Your task to perform on an android device: create a new album in the google photos Image 0: 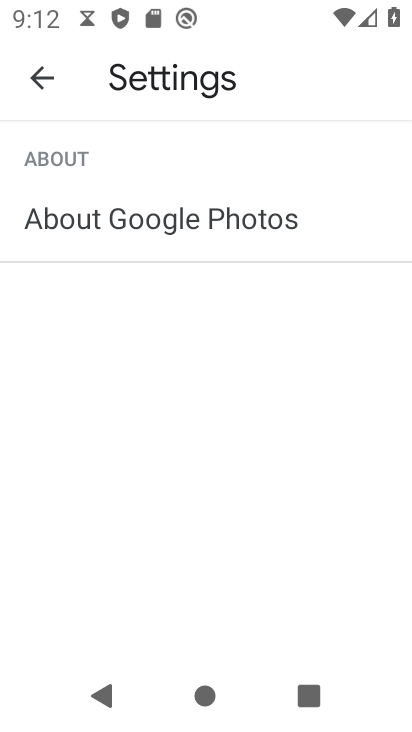
Step 0: press home button
Your task to perform on an android device: create a new album in the google photos Image 1: 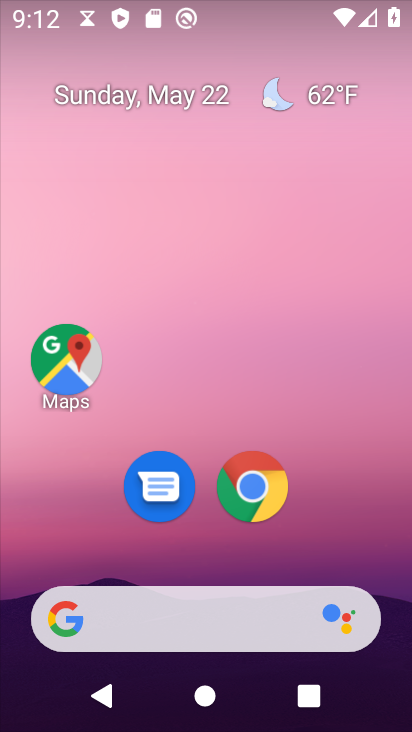
Step 1: drag from (200, 551) to (268, 20)
Your task to perform on an android device: create a new album in the google photos Image 2: 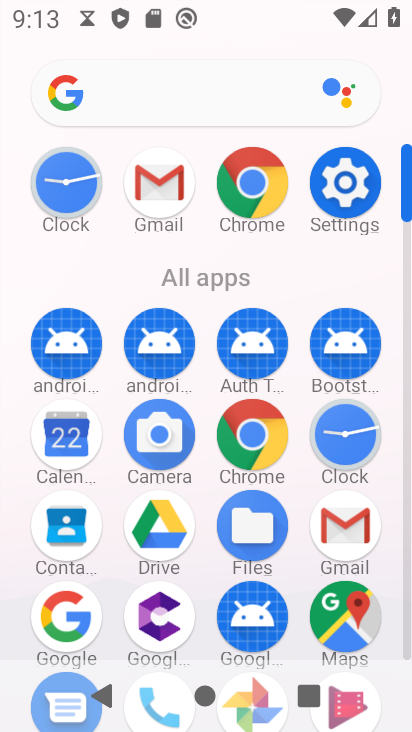
Step 2: drag from (209, 576) to (217, 193)
Your task to perform on an android device: create a new album in the google photos Image 3: 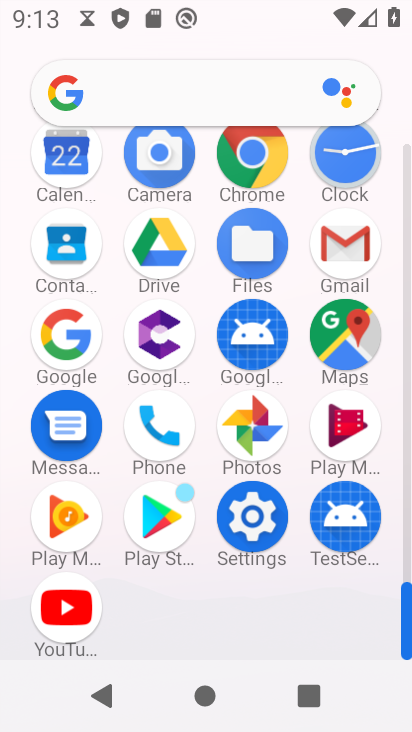
Step 3: click (253, 420)
Your task to perform on an android device: create a new album in the google photos Image 4: 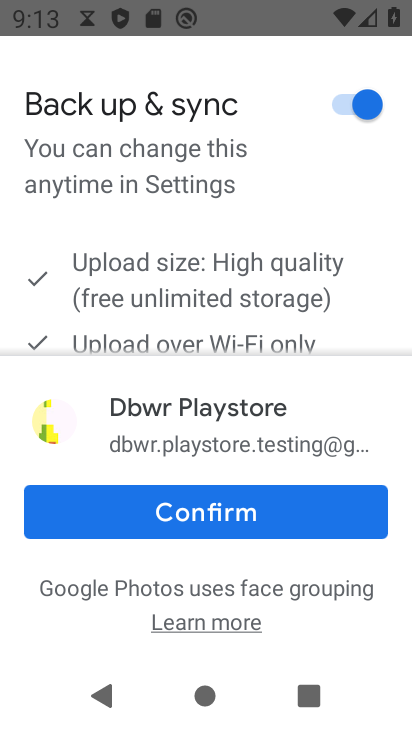
Step 4: click (203, 520)
Your task to perform on an android device: create a new album in the google photos Image 5: 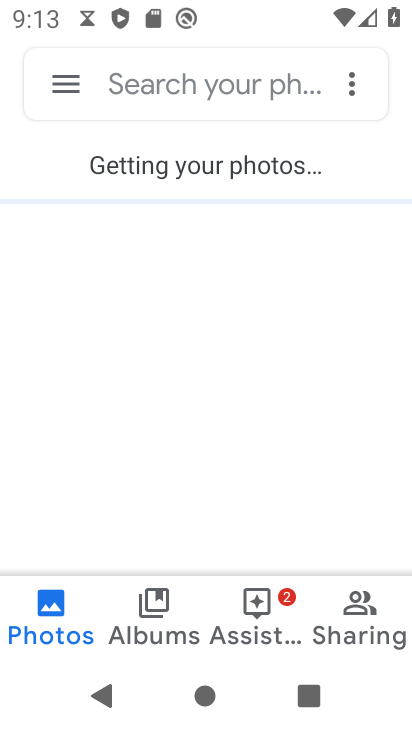
Step 5: click (158, 607)
Your task to perform on an android device: create a new album in the google photos Image 6: 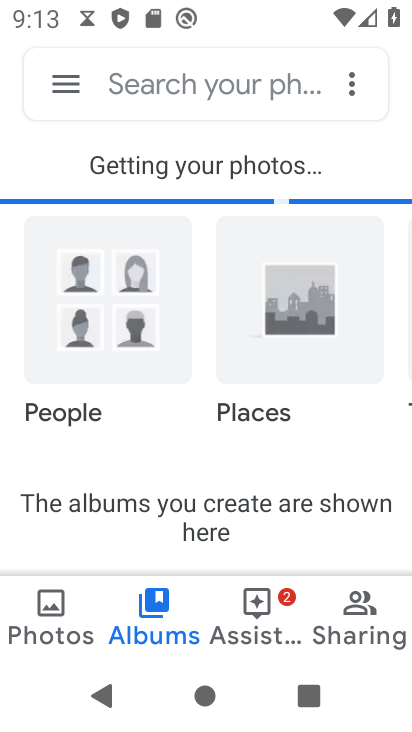
Step 6: click (355, 83)
Your task to perform on an android device: create a new album in the google photos Image 7: 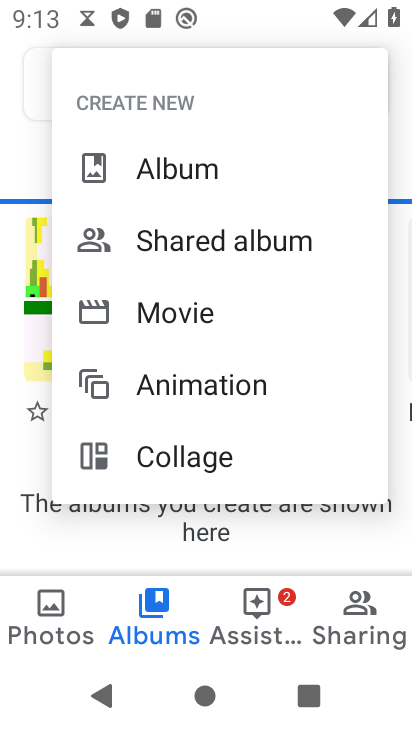
Step 7: click (192, 161)
Your task to perform on an android device: create a new album in the google photos Image 8: 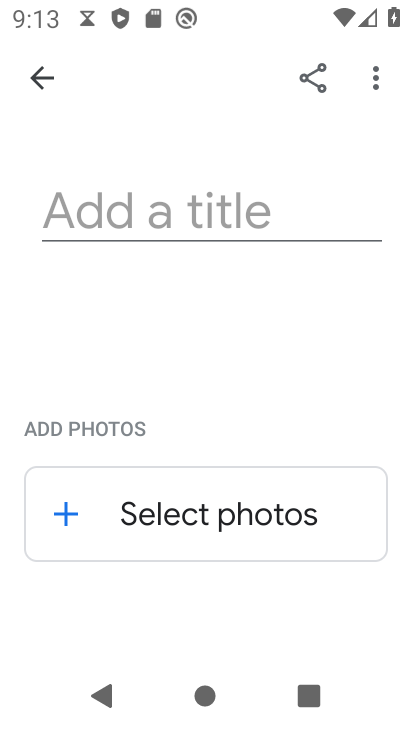
Step 8: click (76, 516)
Your task to perform on an android device: create a new album in the google photos Image 9: 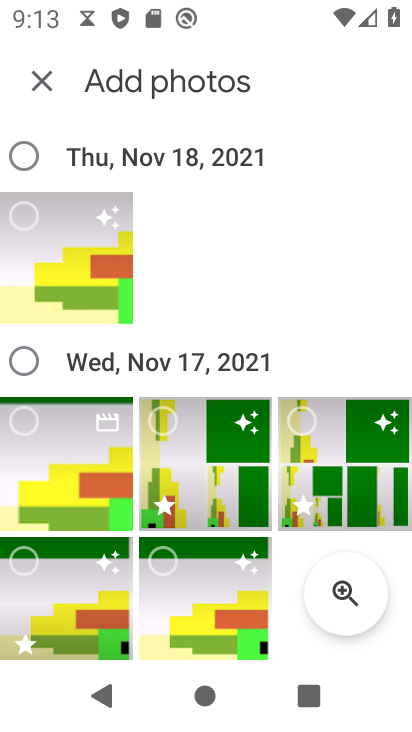
Step 9: click (54, 470)
Your task to perform on an android device: create a new album in the google photos Image 10: 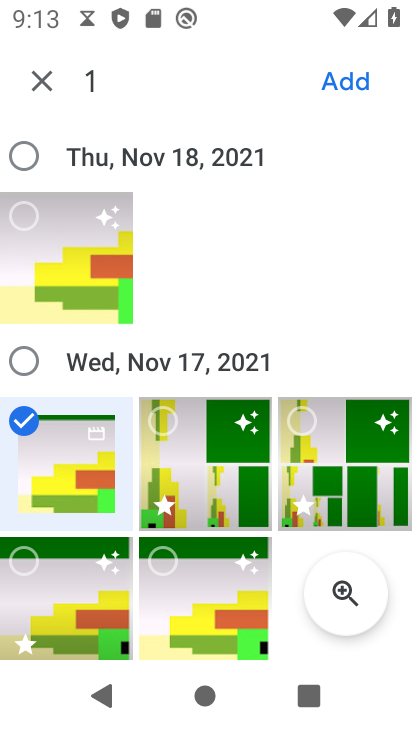
Step 10: click (166, 592)
Your task to perform on an android device: create a new album in the google photos Image 11: 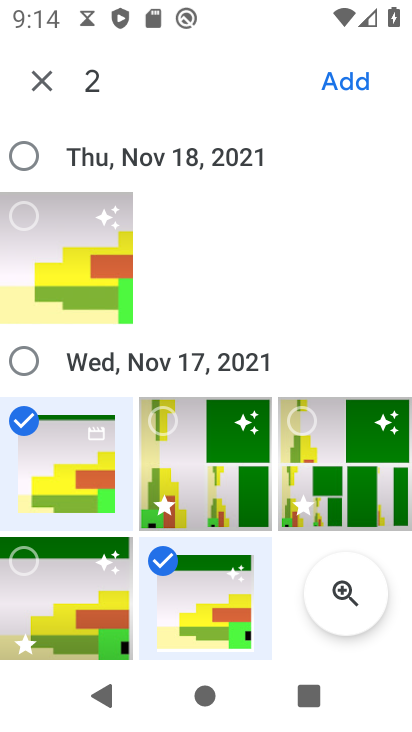
Step 11: click (61, 255)
Your task to perform on an android device: create a new album in the google photos Image 12: 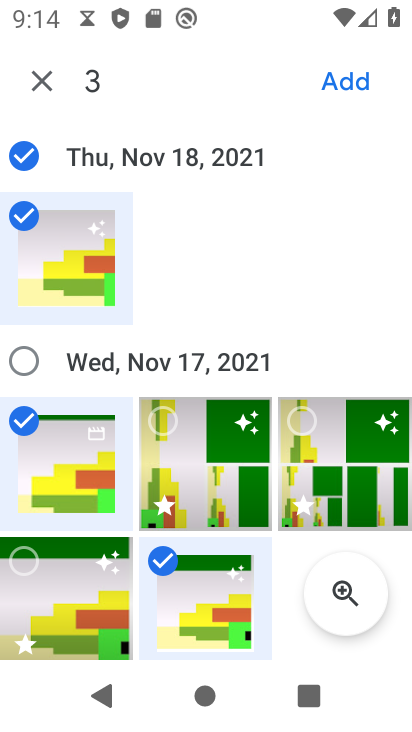
Step 12: click (344, 71)
Your task to perform on an android device: create a new album in the google photos Image 13: 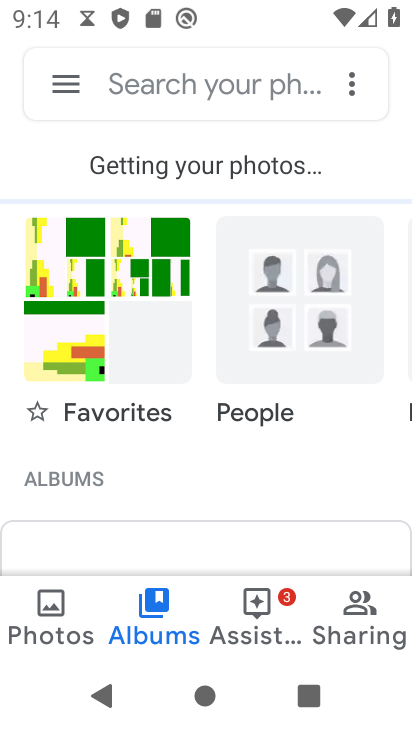
Step 13: click (350, 80)
Your task to perform on an android device: create a new album in the google photos Image 14: 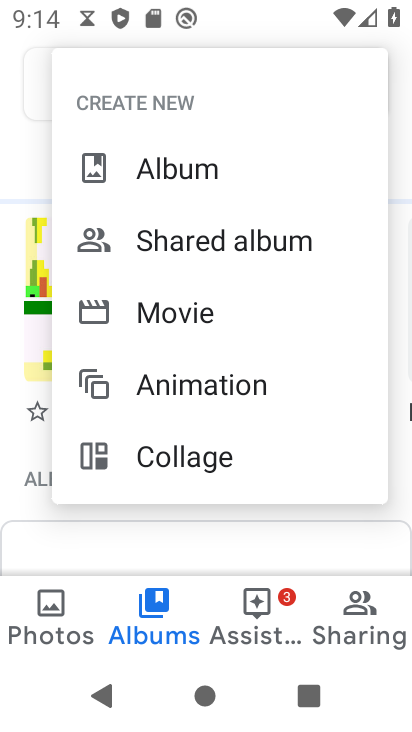
Step 14: click (167, 176)
Your task to perform on an android device: create a new album in the google photos Image 15: 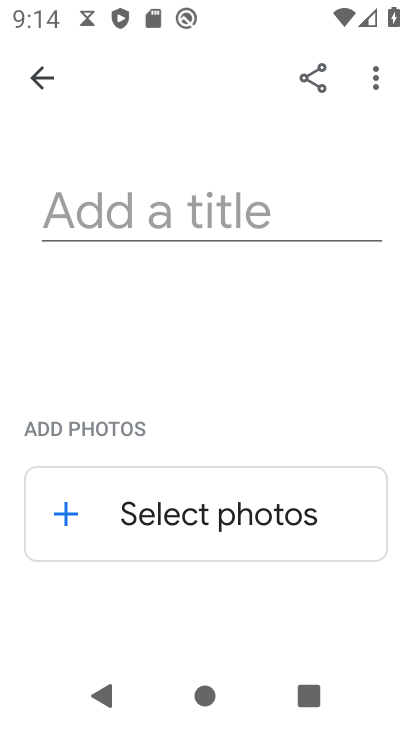
Step 15: click (83, 513)
Your task to perform on an android device: create a new album in the google photos Image 16: 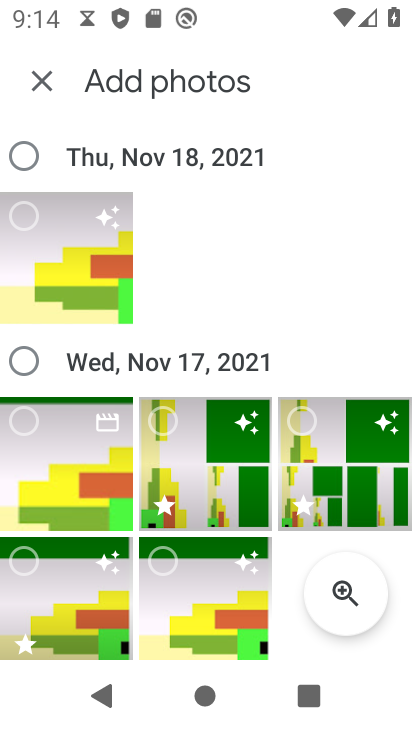
Step 16: click (74, 465)
Your task to perform on an android device: create a new album in the google photos Image 17: 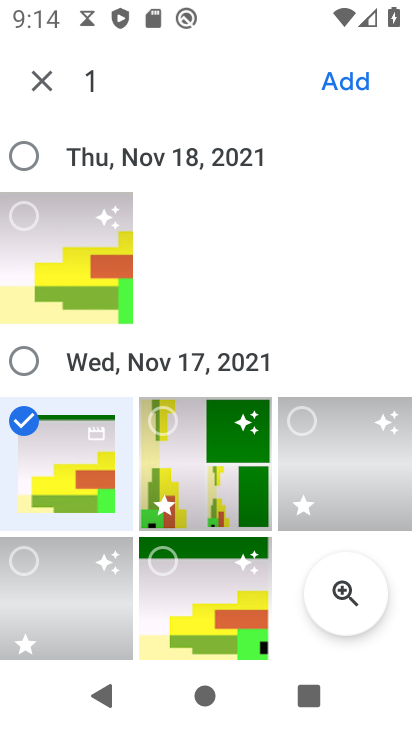
Step 17: click (167, 608)
Your task to perform on an android device: create a new album in the google photos Image 18: 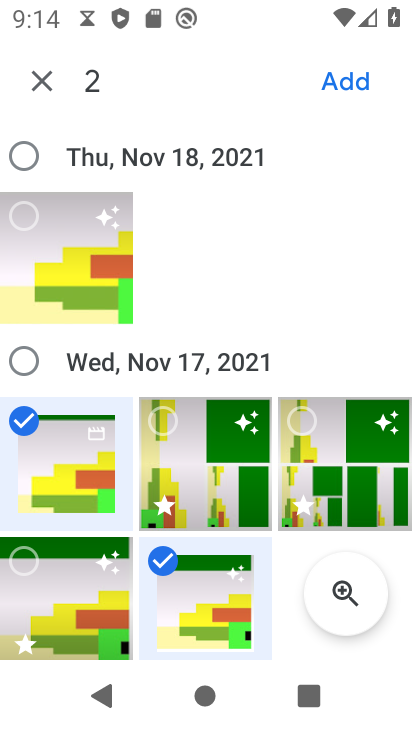
Step 18: click (345, 441)
Your task to perform on an android device: create a new album in the google photos Image 19: 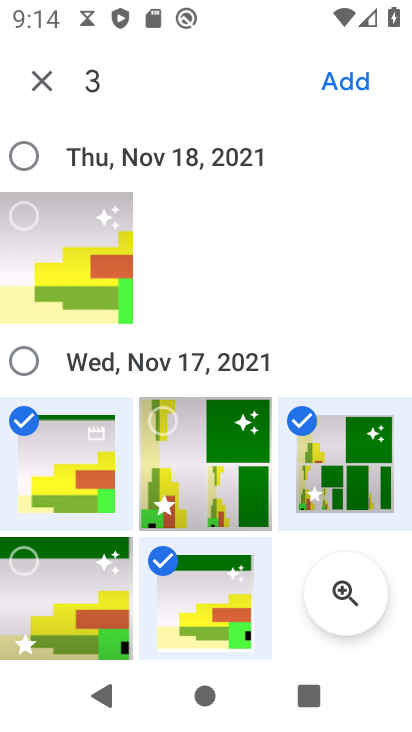
Step 19: click (347, 69)
Your task to perform on an android device: create a new album in the google photos Image 20: 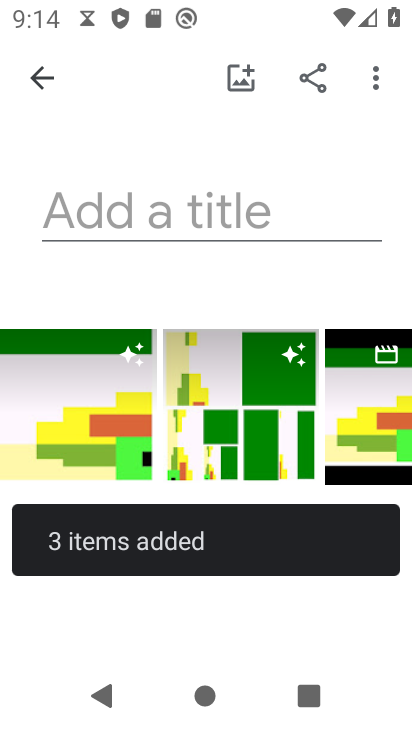
Step 20: click (191, 205)
Your task to perform on an android device: create a new album in the google photos Image 21: 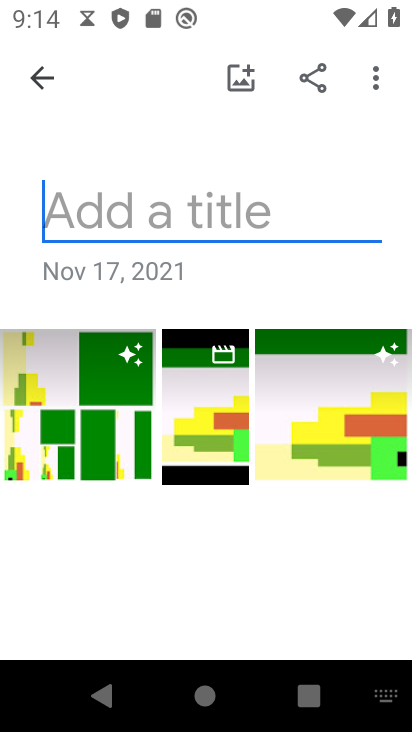
Step 21: type "vxgfdyh"
Your task to perform on an android device: create a new album in the google photos Image 22: 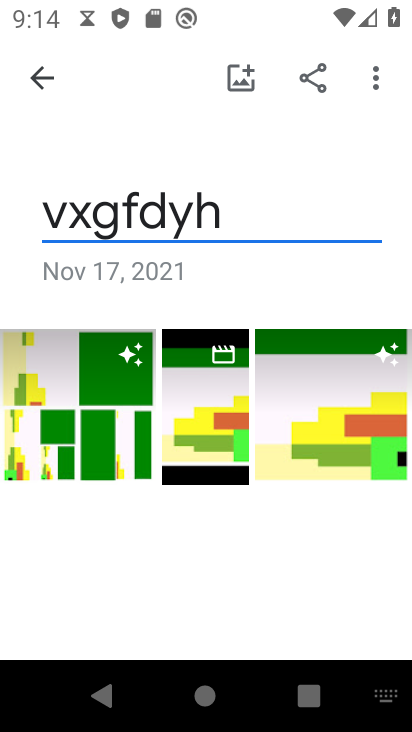
Step 22: task complete